Your task to perform on an android device: refresh tabs in the chrome app Image 0: 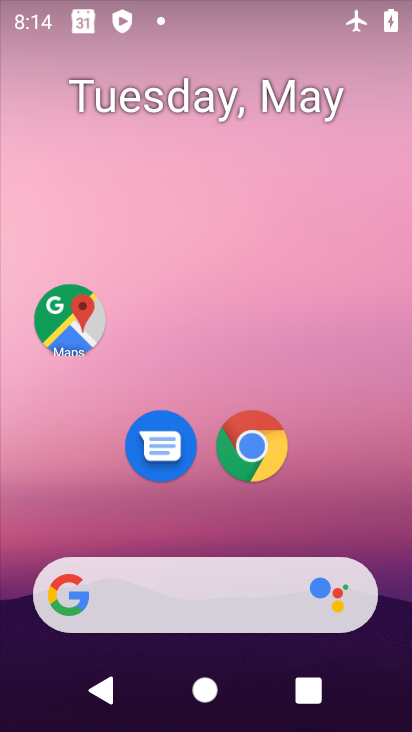
Step 0: click (252, 455)
Your task to perform on an android device: refresh tabs in the chrome app Image 1: 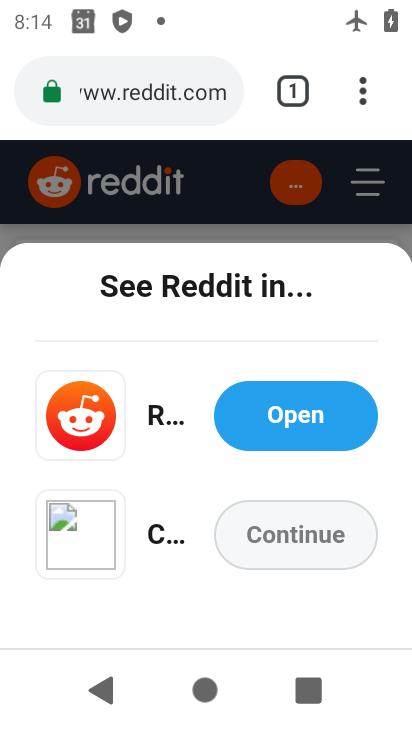
Step 1: click (363, 94)
Your task to perform on an android device: refresh tabs in the chrome app Image 2: 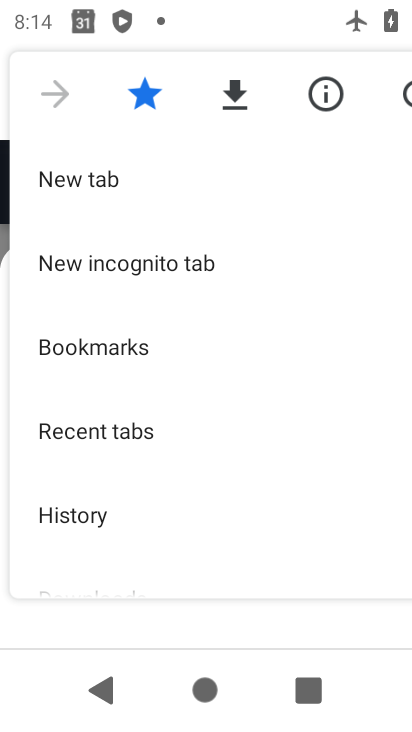
Step 2: click (406, 91)
Your task to perform on an android device: refresh tabs in the chrome app Image 3: 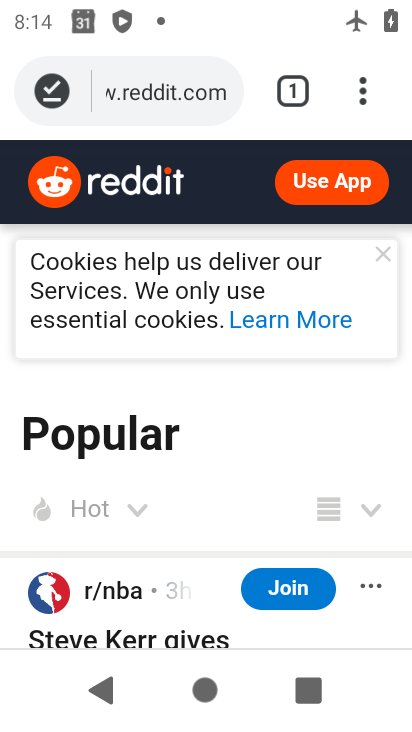
Step 3: task complete